Your task to perform on an android device: turn smart compose on in the gmail app Image 0: 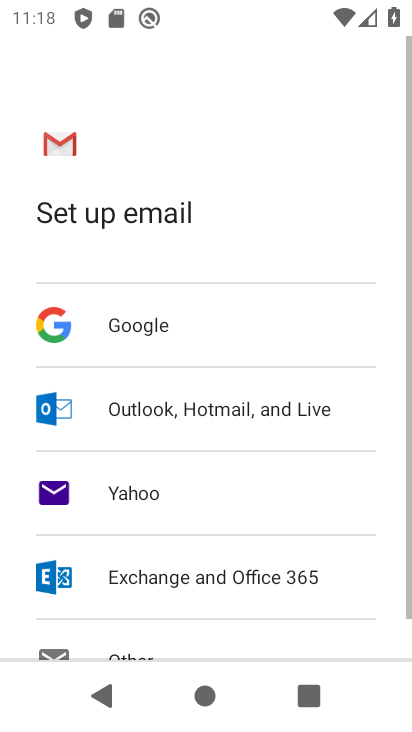
Step 0: press home button
Your task to perform on an android device: turn smart compose on in the gmail app Image 1: 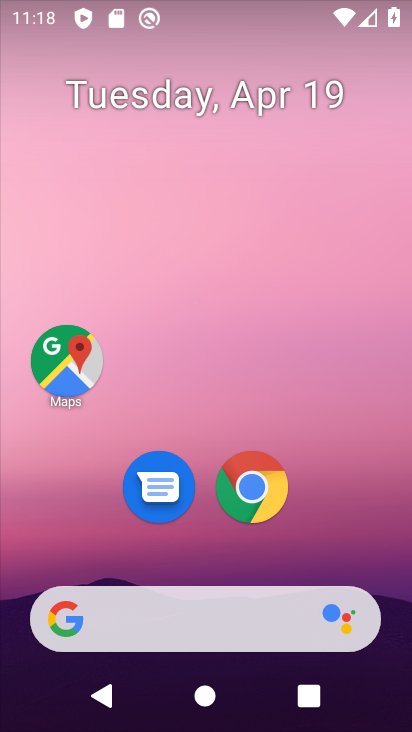
Step 1: drag from (362, 519) to (260, 59)
Your task to perform on an android device: turn smart compose on in the gmail app Image 2: 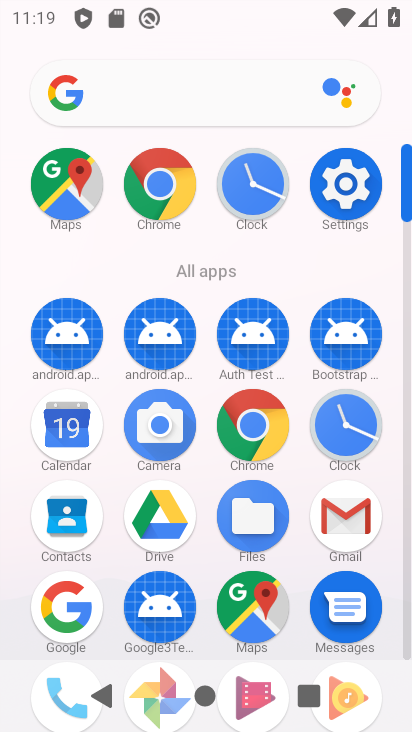
Step 2: click (265, 39)
Your task to perform on an android device: turn smart compose on in the gmail app Image 3: 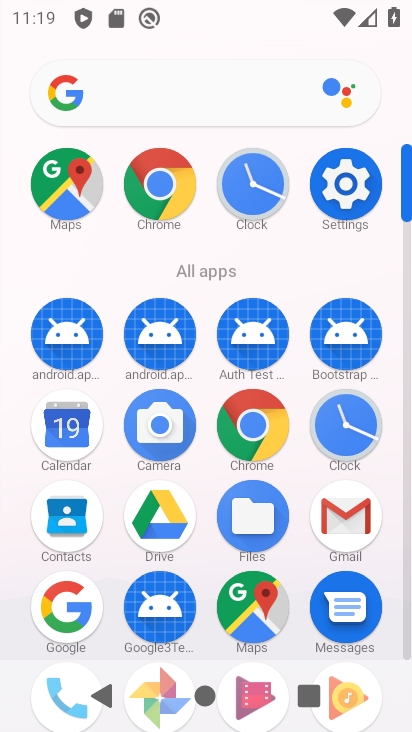
Step 3: click (333, 525)
Your task to perform on an android device: turn smart compose on in the gmail app Image 4: 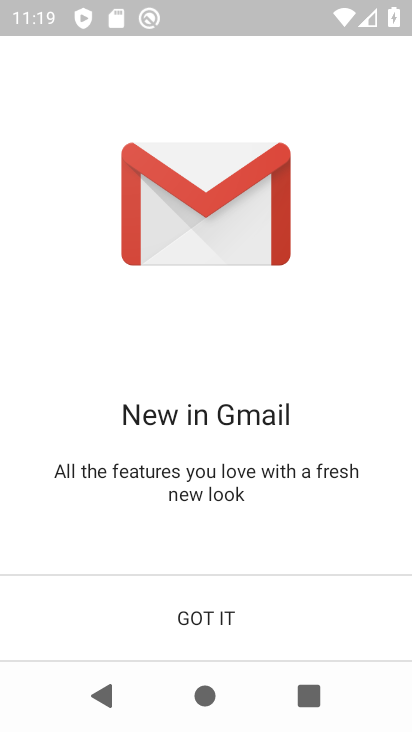
Step 4: click (216, 615)
Your task to perform on an android device: turn smart compose on in the gmail app Image 5: 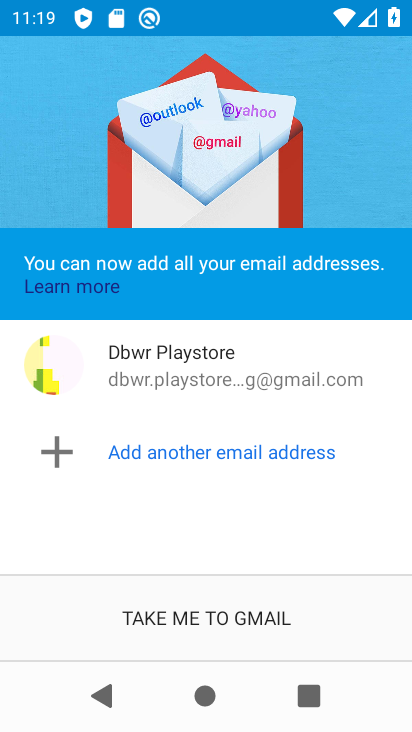
Step 5: click (216, 615)
Your task to perform on an android device: turn smart compose on in the gmail app Image 6: 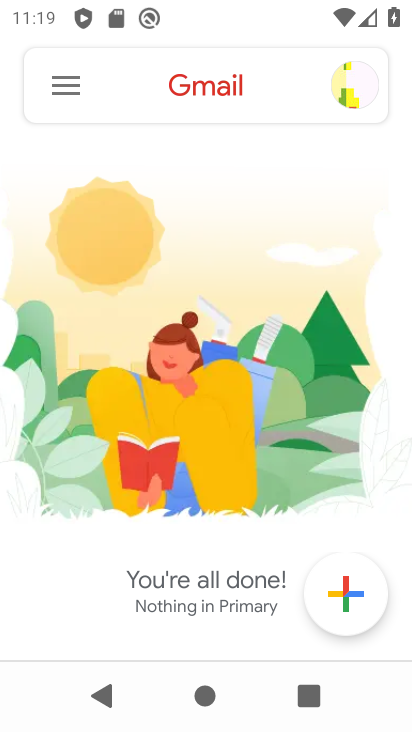
Step 6: click (72, 85)
Your task to perform on an android device: turn smart compose on in the gmail app Image 7: 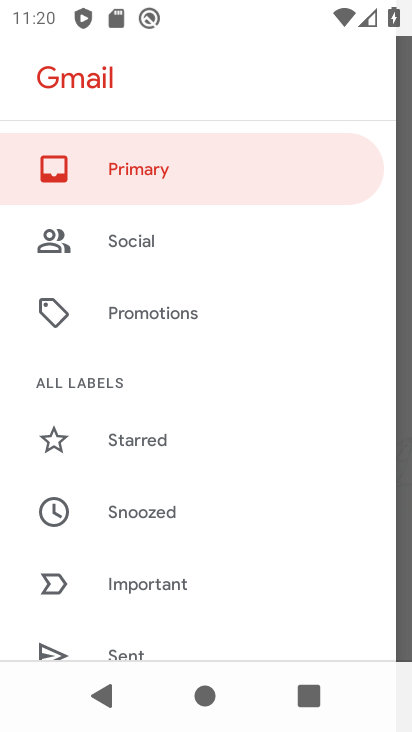
Step 7: drag from (158, 603) to (185, 131)
Your task to perform on an android device: turn smart compose on in the gmail app Image 8: 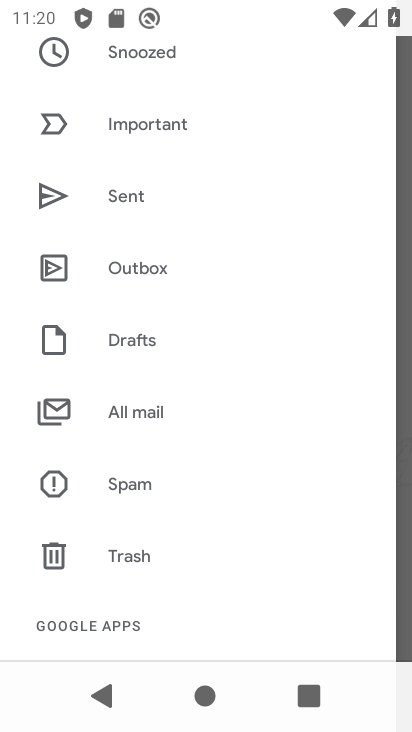
Step 8: click (240, 606)
Your task to perform on an android device: turn smart compose on in the gmail app Image 9: 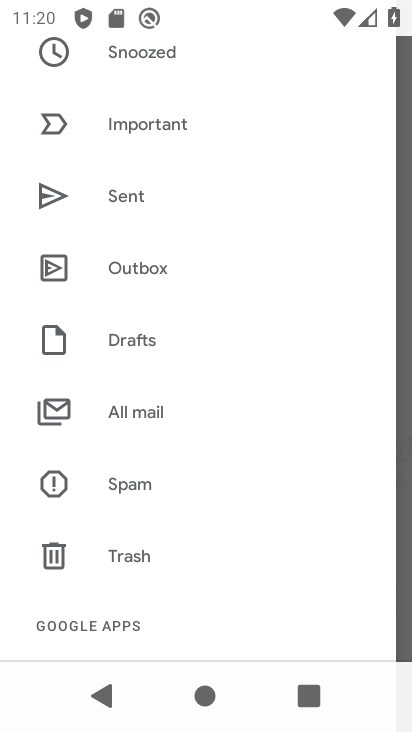
Step 9: drag from (237, 553) to (257, 121)
Your task to perform on an android device: turn smart compose on in the gmail app Image 10: 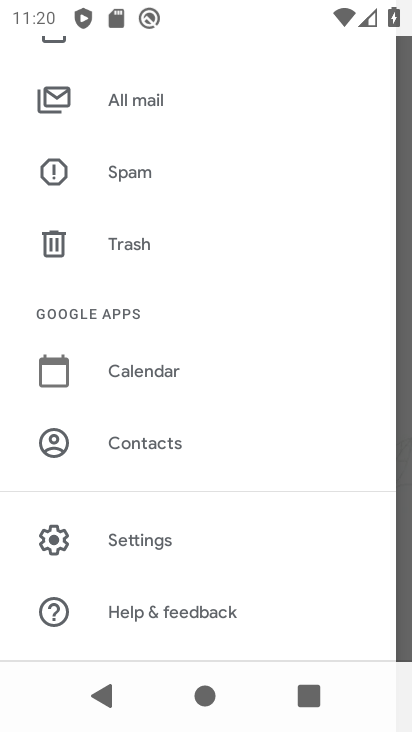
Step 10: click (179, 537)
Your task to perform on an android device: turn smart compose on in the gmail app Image 11: 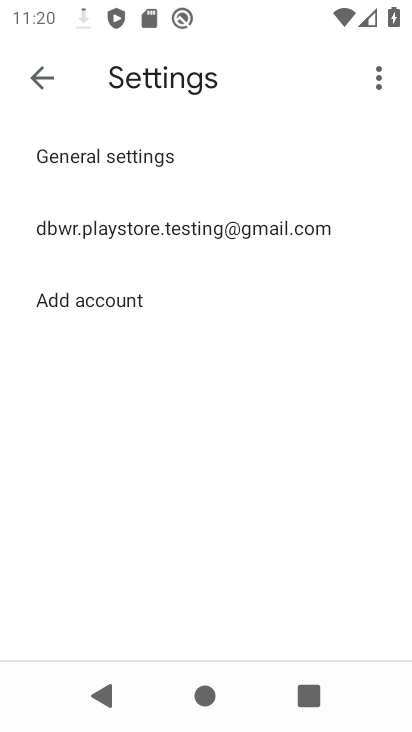
Step 11: click (279, 216)
Your task to perform on an android device: turn smart compose on in the gmail app Image 12: 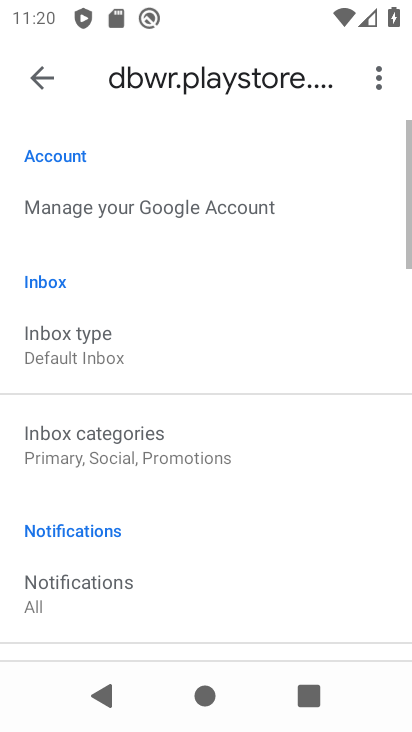
Step 12: task complete